Your task to perform on an android device: Open Youtube and go to "Your channel" Image 0: 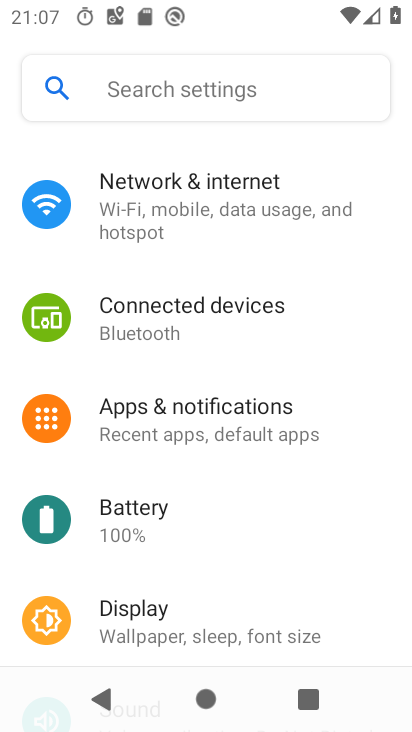
Step 0: press home button
Your task to perform on an android device: Open Youtube and go to "Your channel" Image 1: 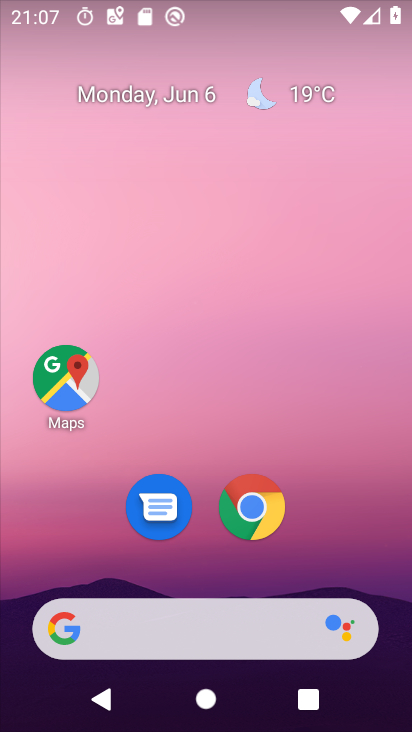
Step 1: drag from (355, 586) to (299, 94)
Your task to perform on an android device: Open Youtube and go to "Your channel" Image 2: 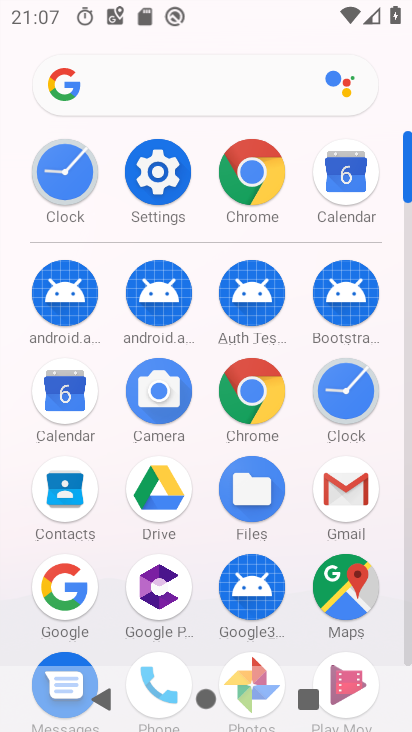
Step 2: drag from (319, 525) to (306, 219)
Your task to perform on an android device: Open Youtube and go to "Your channel" Image 3: 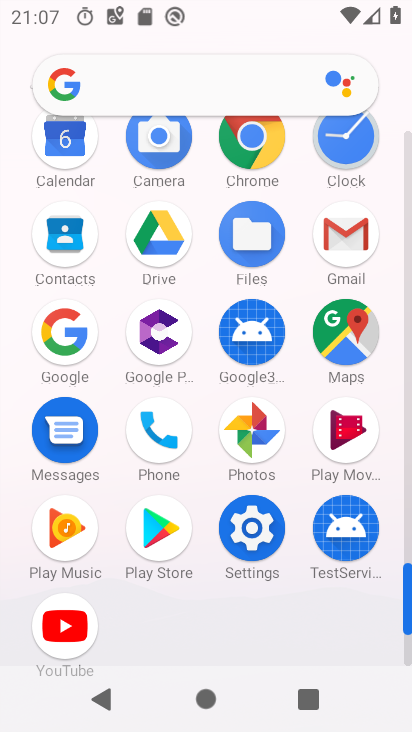
Step 3: click (61, 628)
Your task to perform on an android device: Open Youtube and go to "Your channel" Image 4: 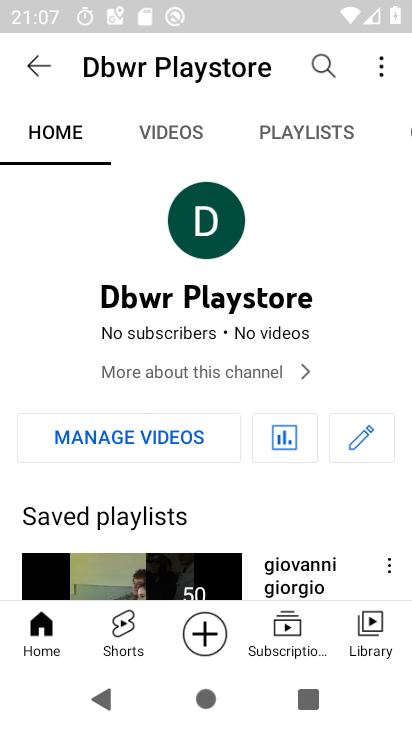
Step 4: task complete